Your task to perform on an android device: Check the weather Image 0: 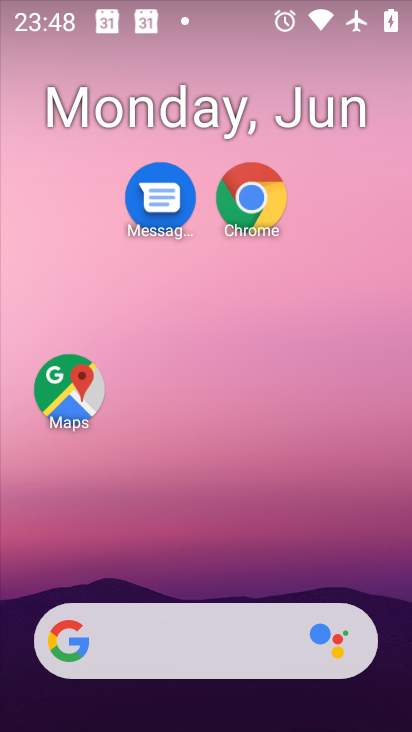
Step 0: drag from (178, 566) to (182, 209)
Your task to perform on an android device: Check the weather Image 1: 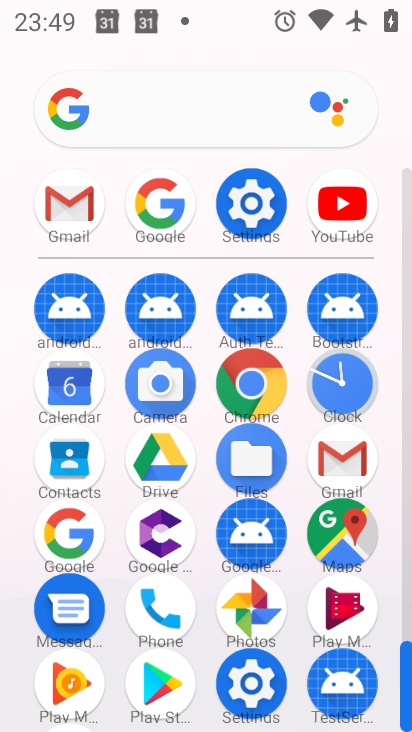
Step 1: drag from (166, 584) to (169, 343)
Your task to perform on an android device: Check the weather Image 2: 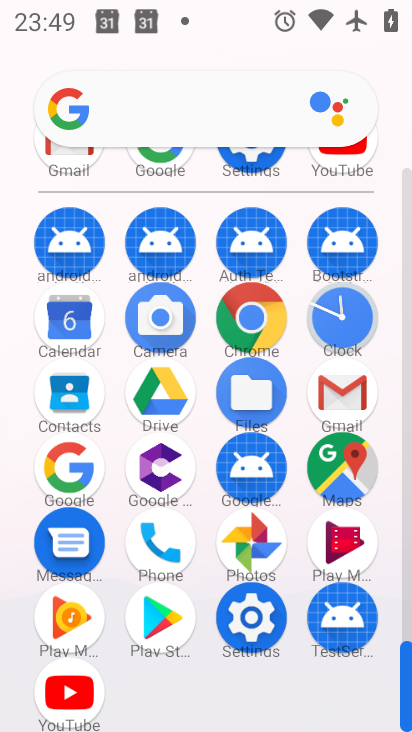
Step 2: drag from (206, 271) to (215, 450)
Your task to perform on an android device: Check the weather Image 3: 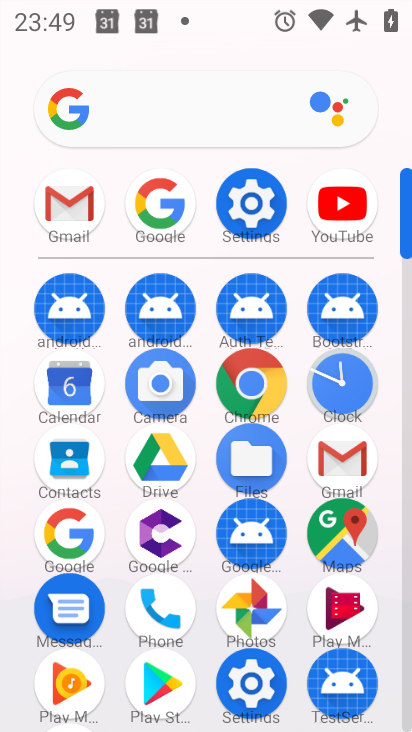
Step 3: drag from (195, 346) to (183, 549)
Your task to perform on an android device: Check the weather Image 4: 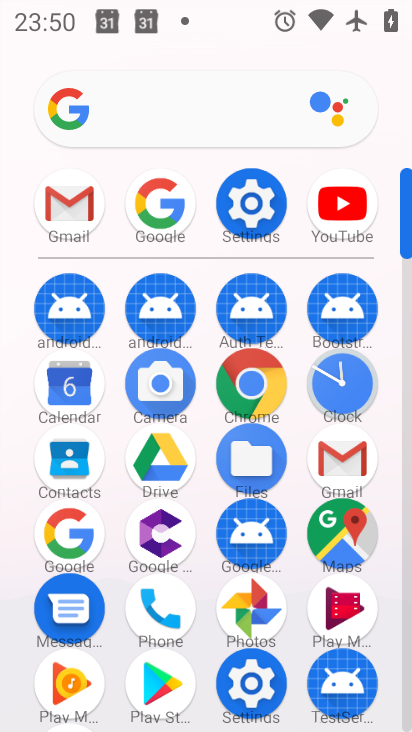
Step 4: click (90, 544)
Your task to perform on an android device: Check the weather Image 5: 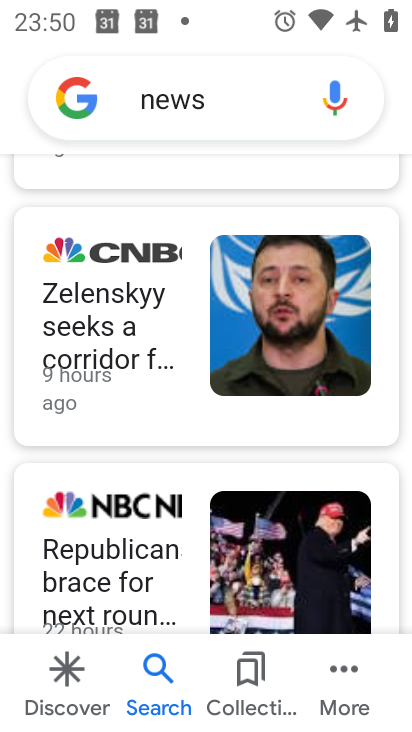
Step 5: click (224, 95)
Your task to perform on an android device: Check the weather Image 6: 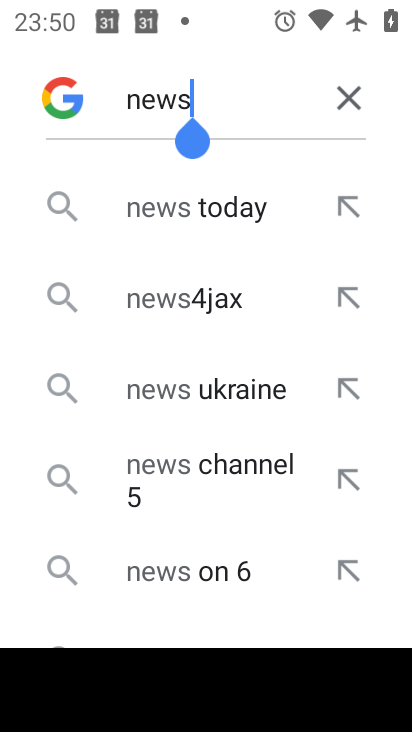
Step 6: click (330, 98)
Your task to perform on an android device: Check the weather Image 7: 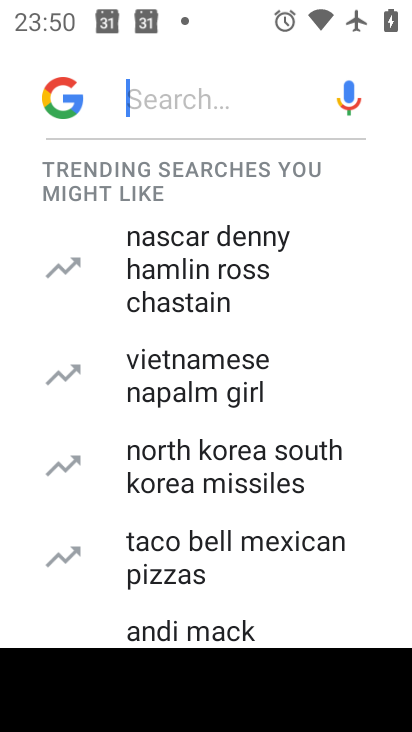
Step 7: type "weather"
Your task to perform on an android device: Check the weather Image 8: 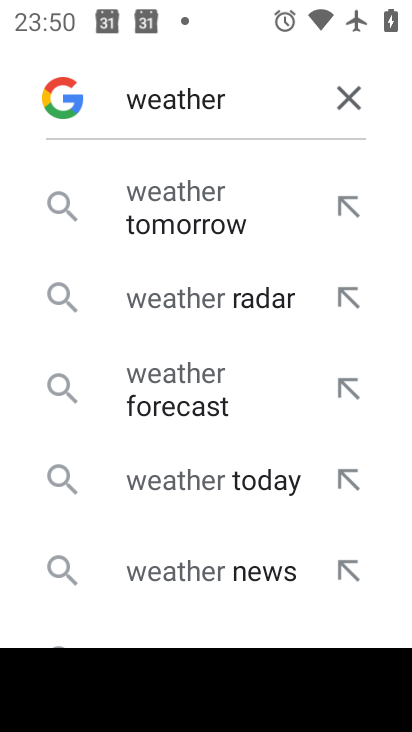
Step 8: click (182, 227)
Your task to perform on an android device: Check the weather Image 9: 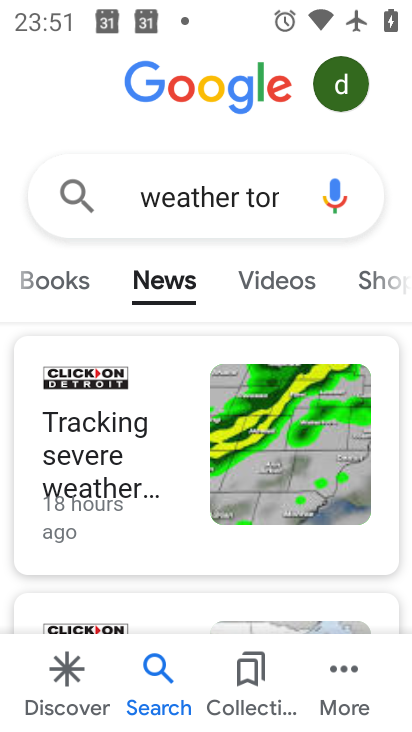
Step 9: click (48, 284)
Your task to perform on an android device: Check the weather Image 10: 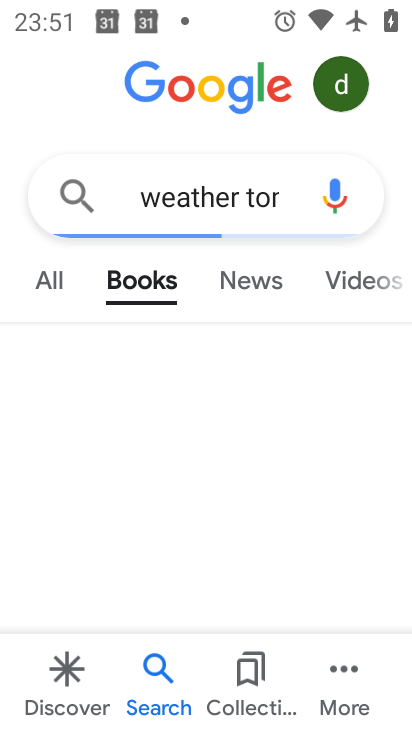
Step 10: click (48, 284)
Your task to perform on an android device: Check the weather Image 11: 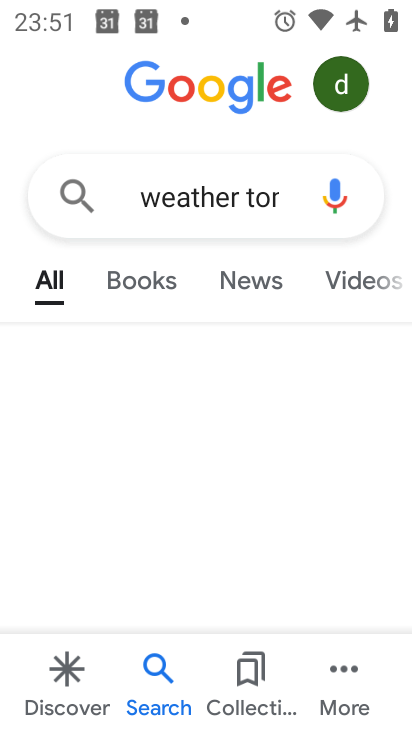
Step 11: drag from (239, 551) to (244, 352)
Your task to perform on an android device: Check the weather Image 12: 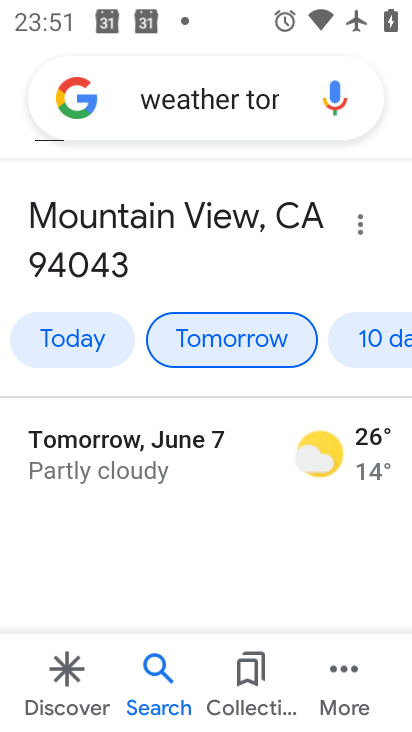
Step 12: drag from (259, 492) to (268, 334)
Your task to perform on an android device: Check the weather Image 13: 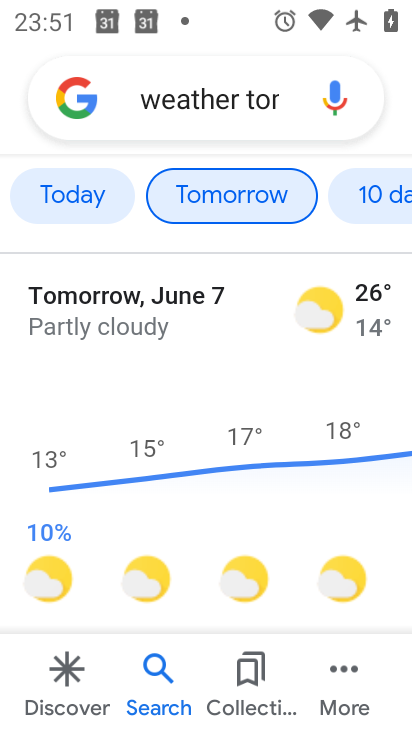
Step 13: click (102, 193)
Your task to perform on an android device: Check the weather Image 14: 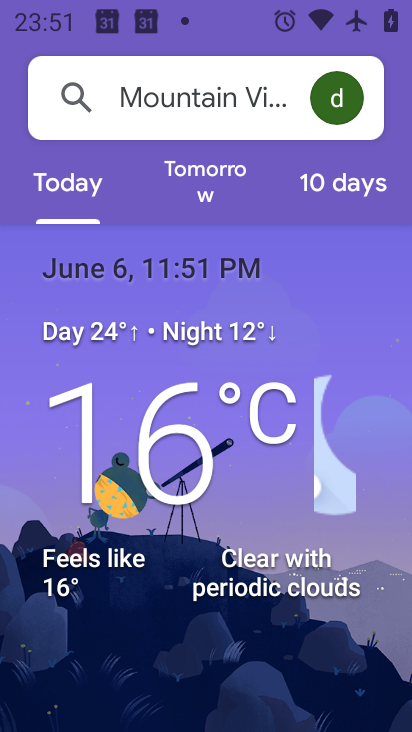
Step 14: task complete